Your task to perform on an android device: change the clock display to show seconds Image 0: 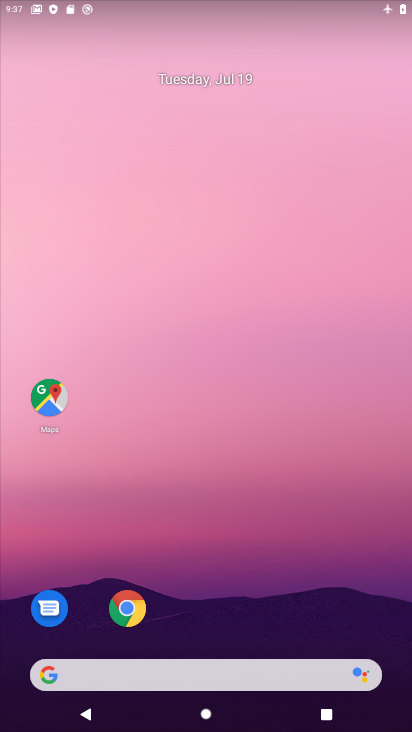
Step 0: drag from (287, 631) to (262, 72)
Your task to perform on an android device: change the clock display to show seconds Image 1: 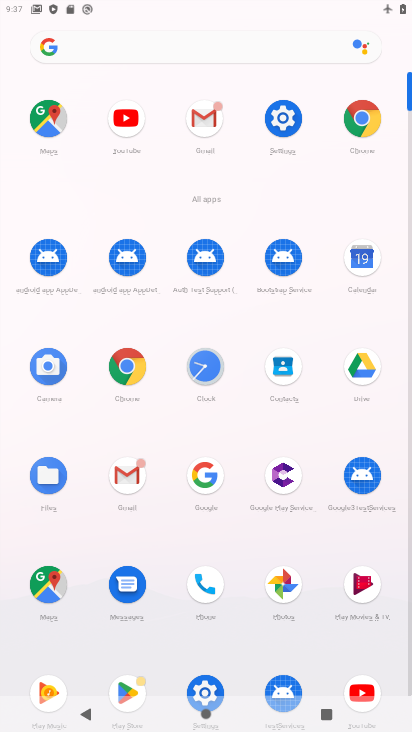
Step 1: click (199, 370)
Your task to perform on an android device: change the clock display to show seconds Image 2: 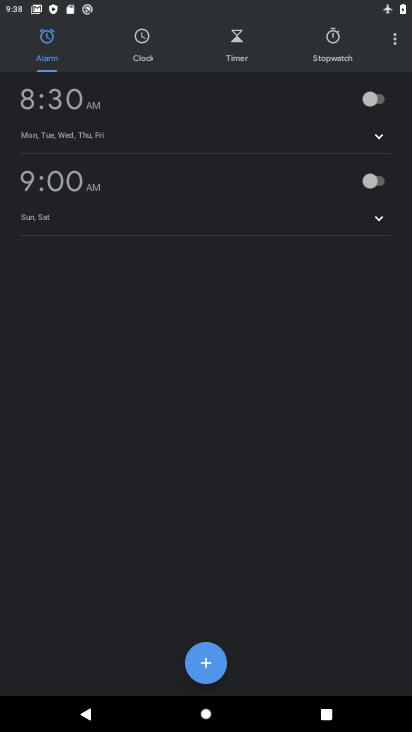
Step 2: click (391, 35)
Your task to perform on an android device: change the clock display to show seconds Image 3: 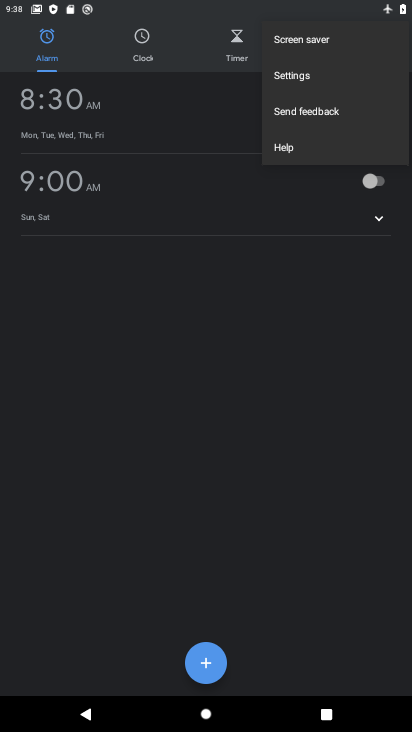
Step 3: click (304, 88)
Your task to perform on an android device: change the clock display to show seconds Image 4: 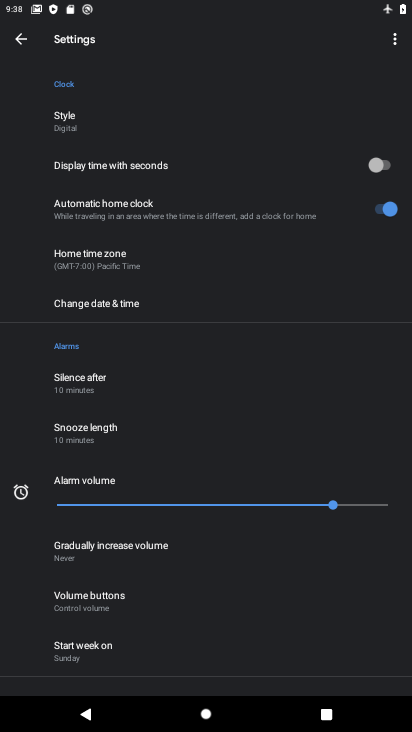
Step 4: click (386, 168)
Your task to perform on an android device: change the clock display to show seconds Image 5: 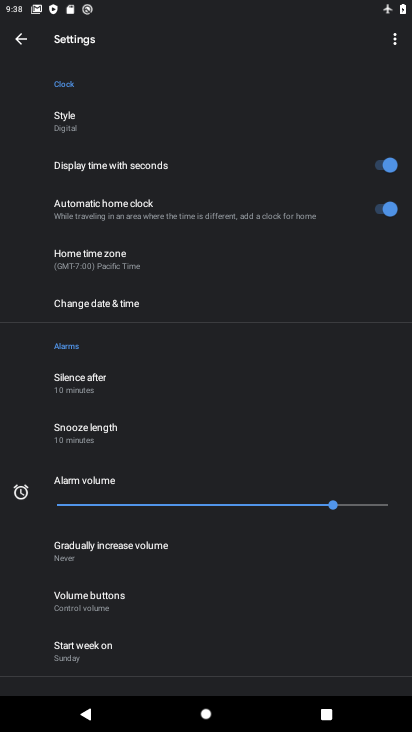
Step 5: task complete